Your task to perform on an android device: change notifications settings Image 0: 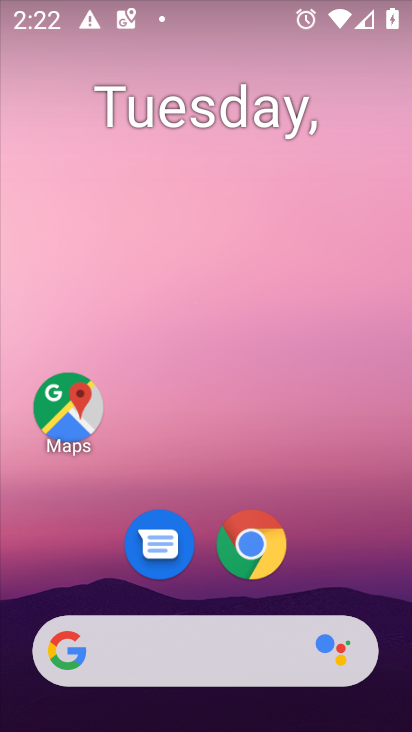
Step 0: drag from (337, 548) to (324, 101)
Your task to perform on an android device: change notifications settings Image 1: 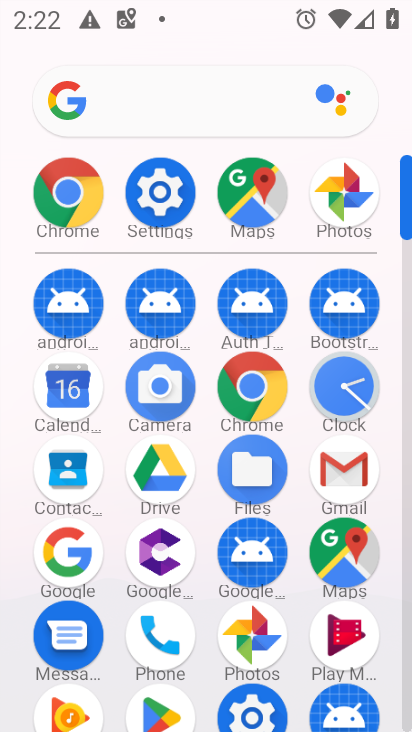
Step 1: click (251, 715)
Your task to perform on an android device: change notifications settings Image 2: 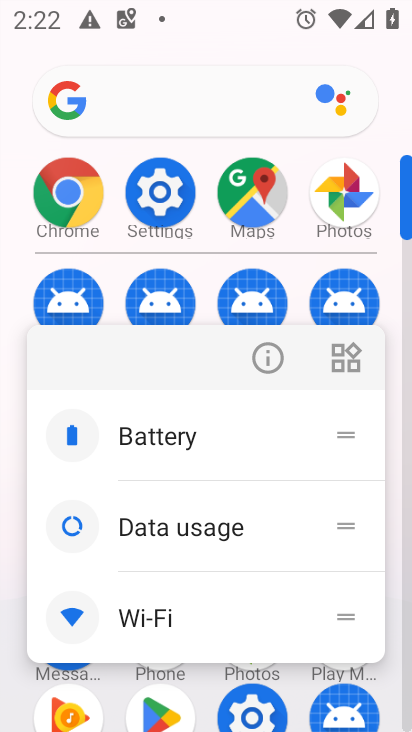
Step 2: click (252, 710)
Your task to perform on an android device: change notifications settings Image 3: 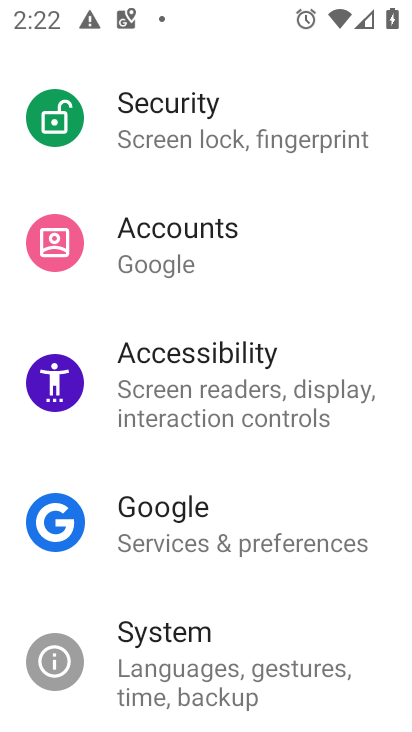
Step 3: drag from (295, 211) to (264, 653)
Your task to perform on an android device: change notifications settings Image 4: 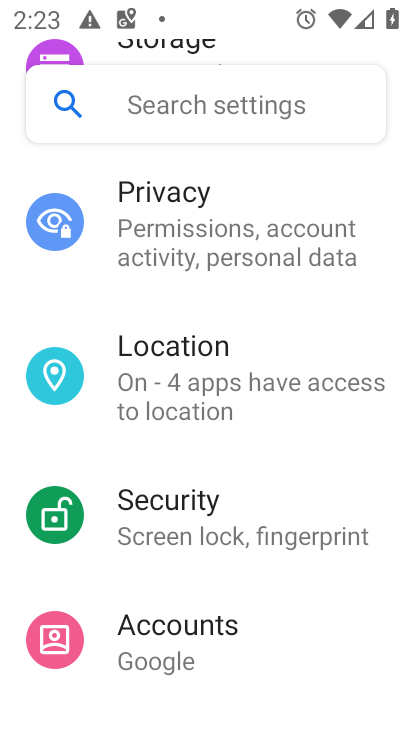
Step 4: drag from (267, 172) to (269, 614)
Your task to perform on an android device: change notifications settings Image 5: 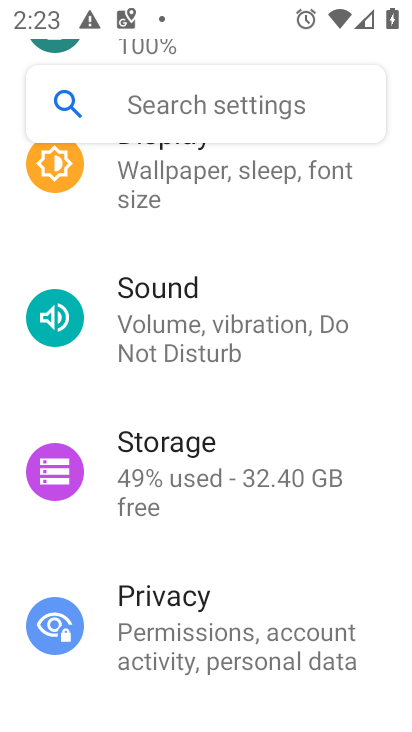
Step 5: drag from (278, 262) to (285, 667)
Your task to perform on an android device: change notifications settings Image 6: 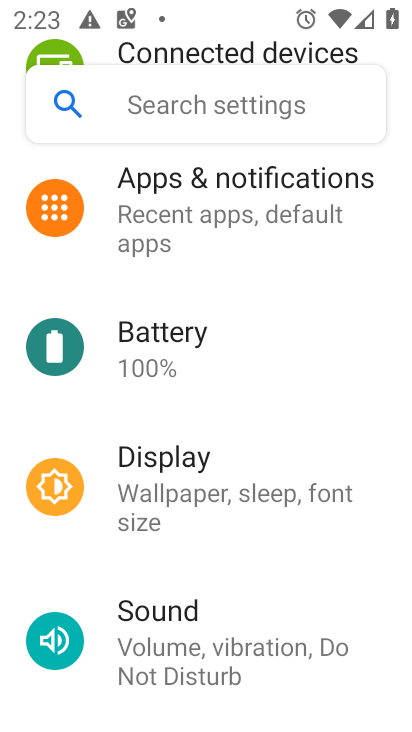
Step 6: click (273, 215)
Your task to perform on an android device: change notifications settings Image 7: 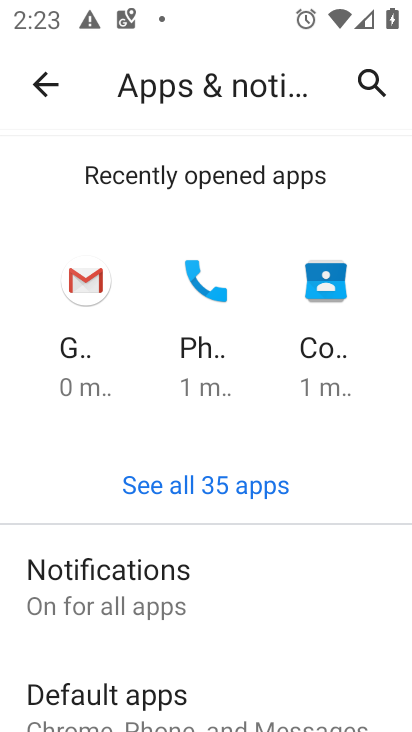
Step 7: task complete